Your task to perform on an android device: turn on showing notifications on the lock screen Image 0: 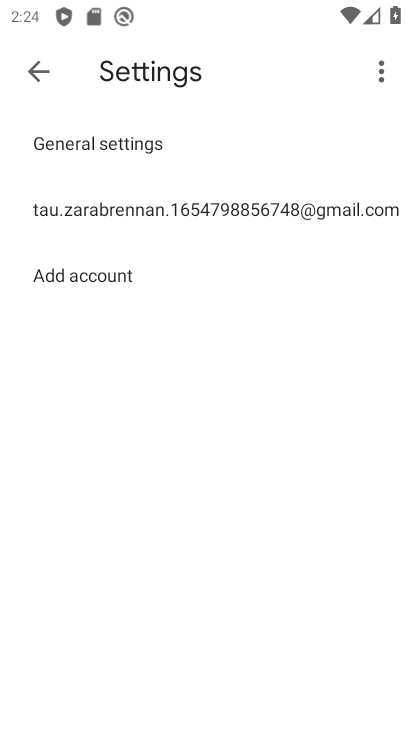
Step 0: press home button
Your task to perform on an android device: turn on showing notifications on the lock screen Image 1: 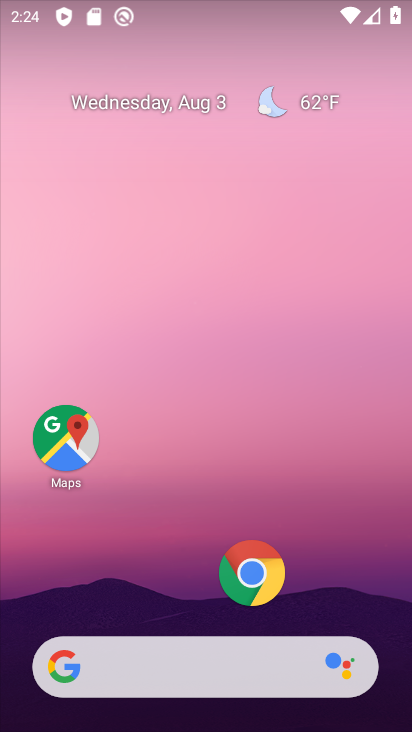
Step 1: drag from (170, 598) to (244, 74)
Your task to perform on an android device: turn on showing notifications on the lock screen Image 2: 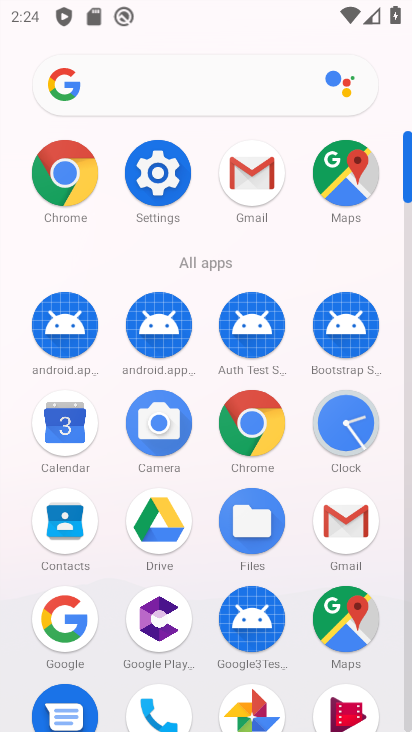
Step 2: click (165, 197)
Your task to perform on an android device: turn on showing notifications on the lock screen Image 3: 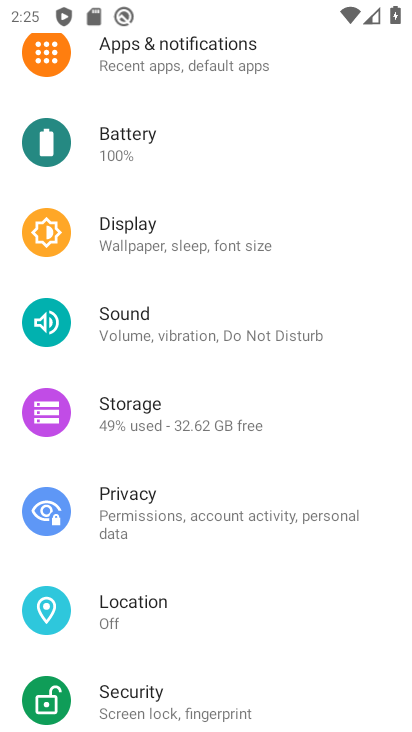
Step 3: click (222, 71)
Your task to perform on an android device: turn on showing notifications on the lock screen Image 4: 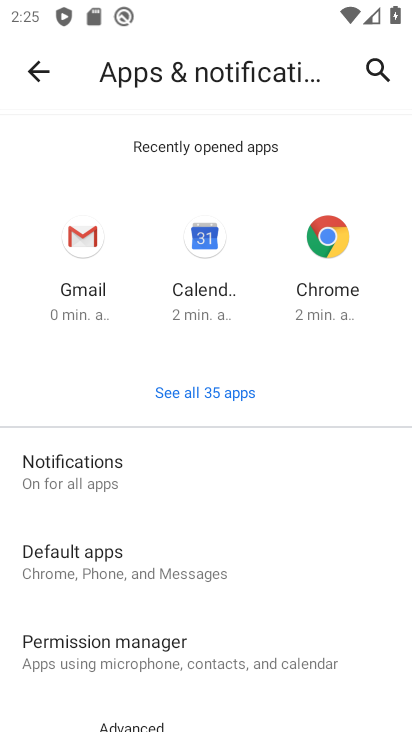
Step 4: click (88, 477)
Your task to perform on an android device: turn on showing notifications on the lock screen Image 5: 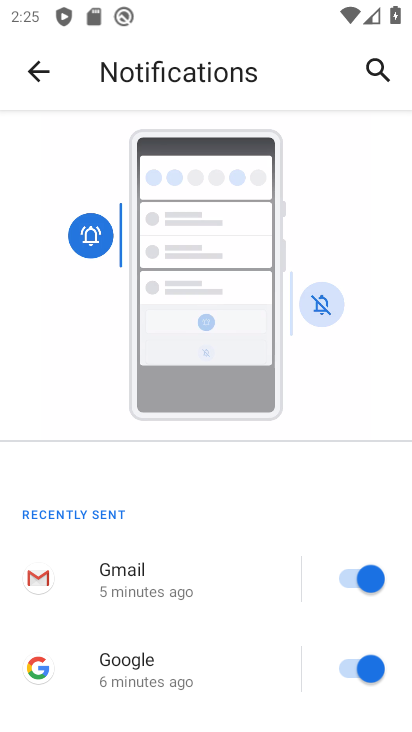
Step 5: click (249, 378)
Your task to perform on an android device: turn on showing notifications on the lock screen Image 6: 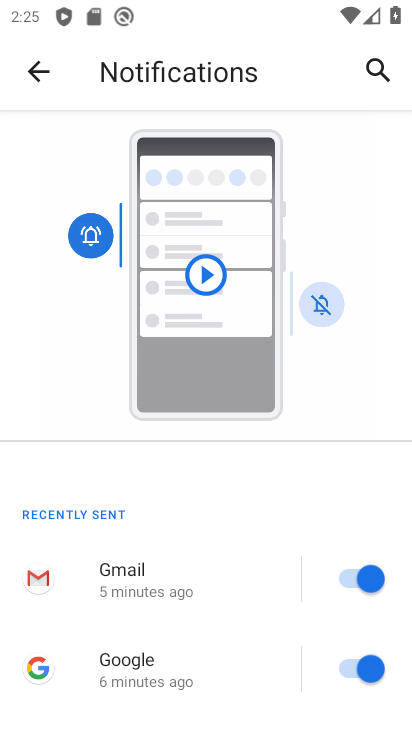
Step 6: drag from (228, 585) to (257, 305)
Your task to perform on an android device: turn on showing notifications on the lock screen Image 7: 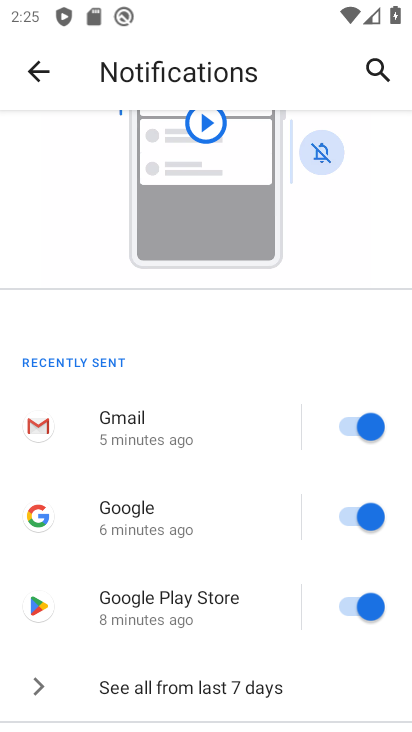
Step 7: click (212, 342)
Your task to perform on an android device: turn on showing notifications on the lock screen Image 8: 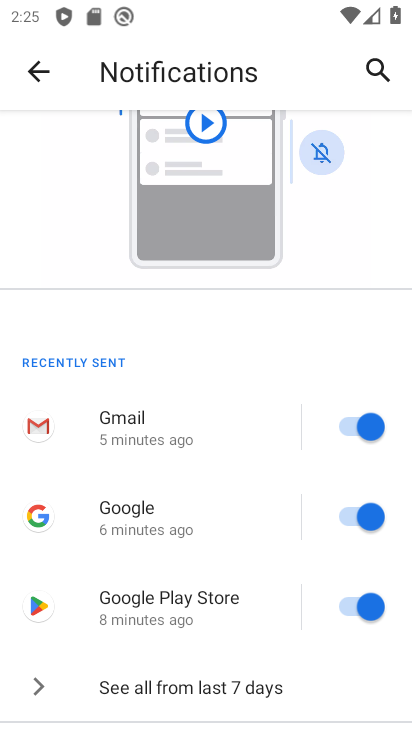
Step 8: drag from (168, 620) to (217, 334)
Your task to perform on an android device: turn on showing notifications on the lock screen Image 9: 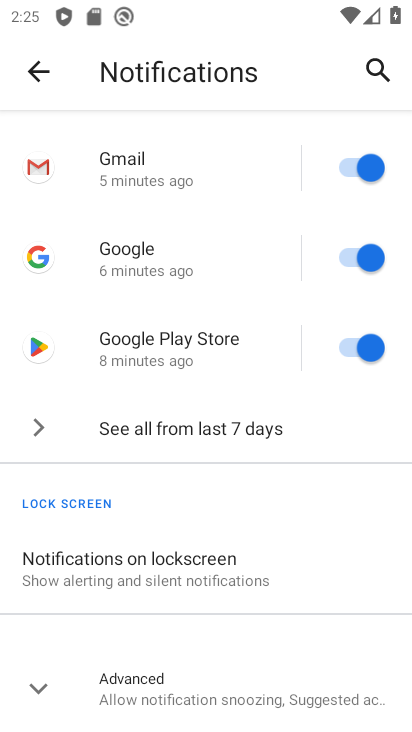
Step 9: click (178, 562)
Your task to perform on an android device: turn on showing notifications on the lock screen Image 10: 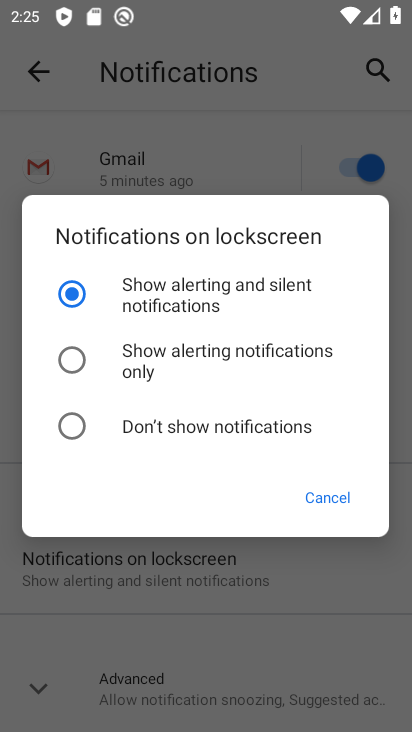
Step 10: task complete